Your task to perform on an android device: turn on priority inbox in the gmail app Image 0: 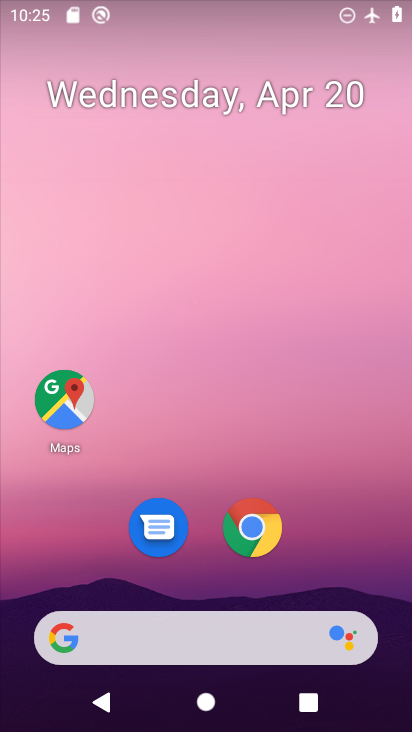
Step 0: drag from (335, 267) to (355, 27)
Your task to perform on an android device: turn on priority inbox in the gmail app Image 1: 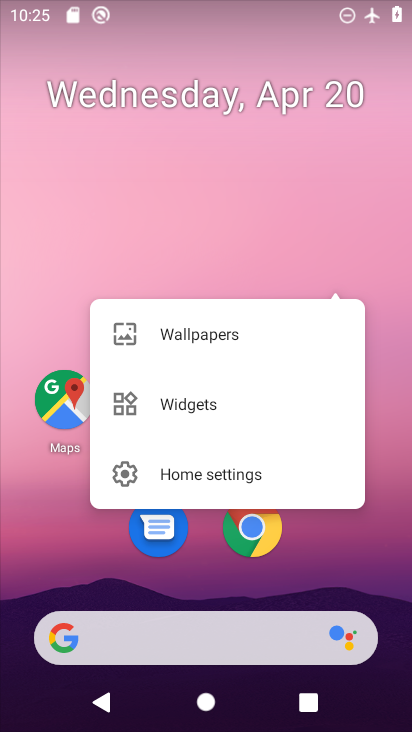
Step 1: click (252, 526)
Your task to perform on an android device: turn on priority inbox in the gmail app Image 2: 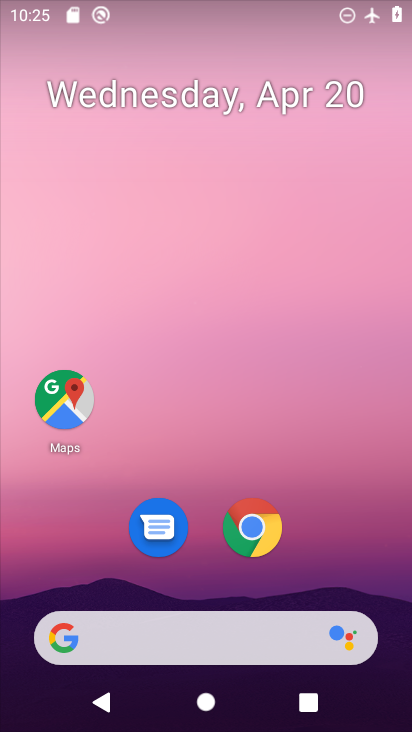
Step 2: drag from (218, 546) to (240, 1)
Your task to perform on an android device: turn on priority inbox in the gmail app Image 3: 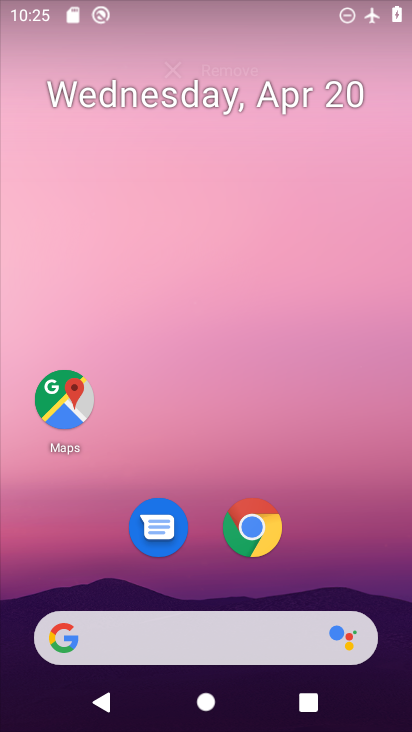
Step 3: click (366, 450)
Your task to perform on an android device: turn on priority inbox in the gmail app Image 4: 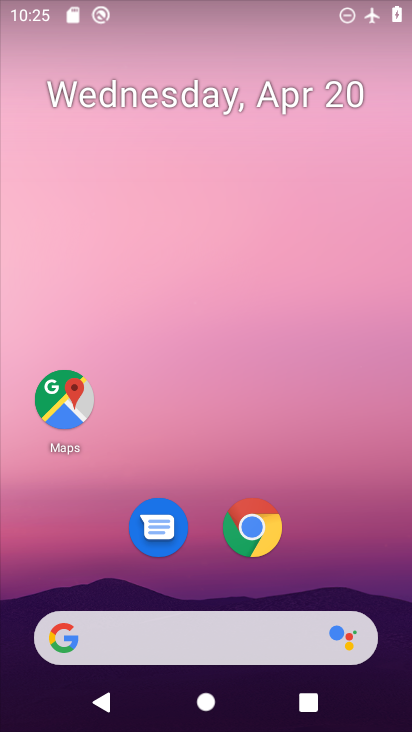
Step 4: drag from (212, 577) to (326, 14)
Your task to perform on an android device: turn on priority inbox in the gmail app Image 5: 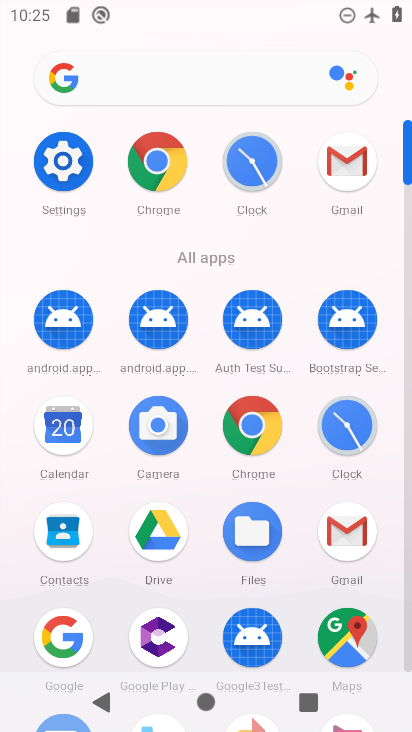
Step 5: drag from (174, 336) to (183, 248)
Your task to perform on an android device: turn on priority inbox in the gmail app Image 6: 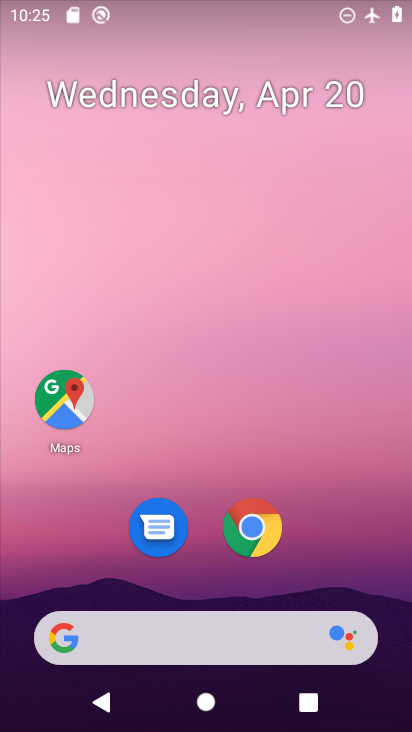
Step 6: click (357, 537)
Your task to perform on an android device: turn on priority inbox in the gmail app Image 7: 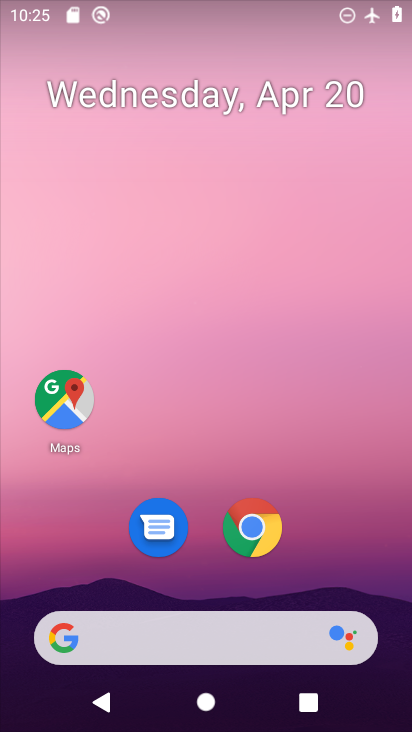
Step 7: drag from (227, 563) to (272, 72)
Your task to perform on an android device: turn on priority inbox in the gmail app Image 8: 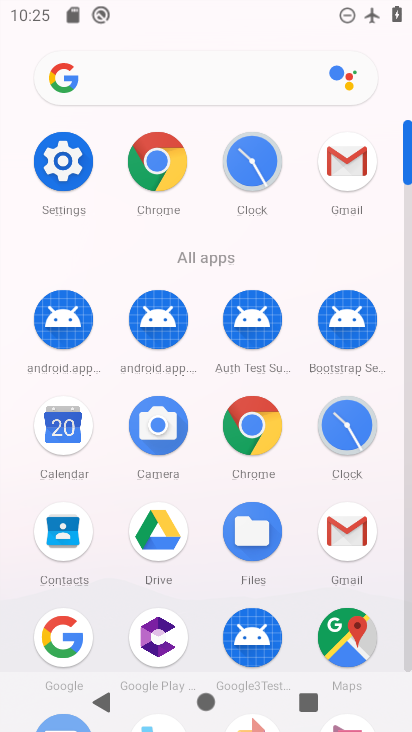
Step 8: click (352, 540)
Your task to perform on an android device: turn on priority inbox in the gmail app Image 9: 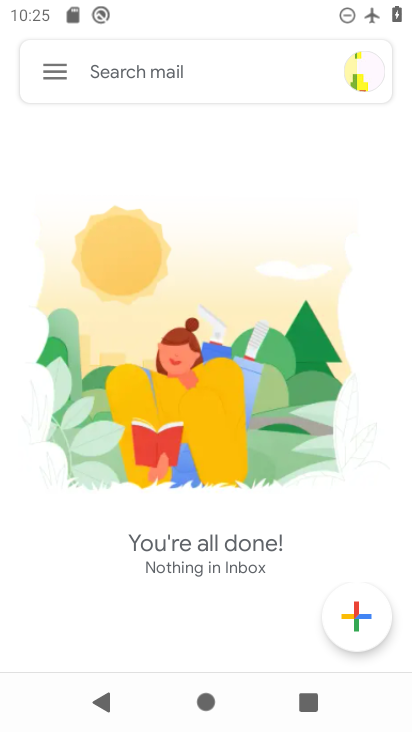
Step 9: click (55, 67)
Your task to perform on an android device: turn on priority inbox in the gmail app Image 10: 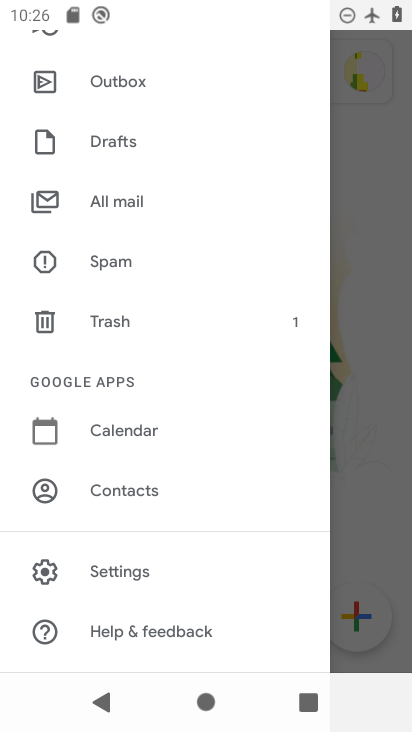
Step 10: click (133, 570)
Your task to perform on an android device: turn on priority inbox in the gmail app Image 11: 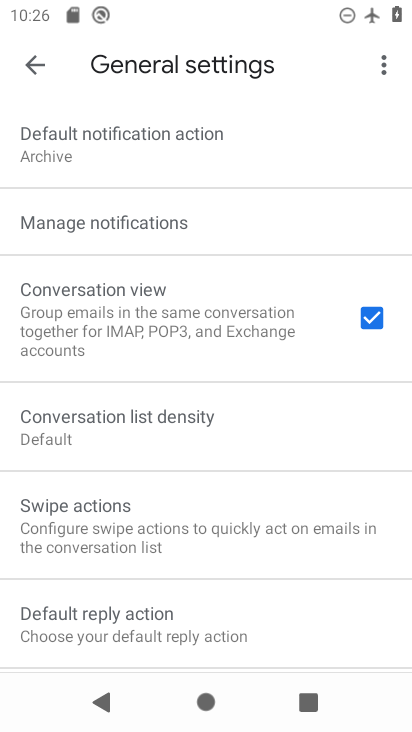
Step 11: click (28, 62)
Your task to perform on an android device: turn on priority inbox in the gmail app Image 12: 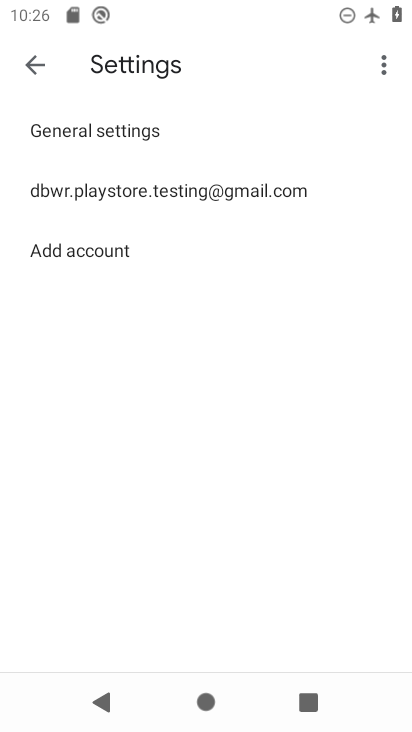
Step 12: click (180, 202)
Your task to perform on an android device: turn on priority inbox in the gmail app Image 13: 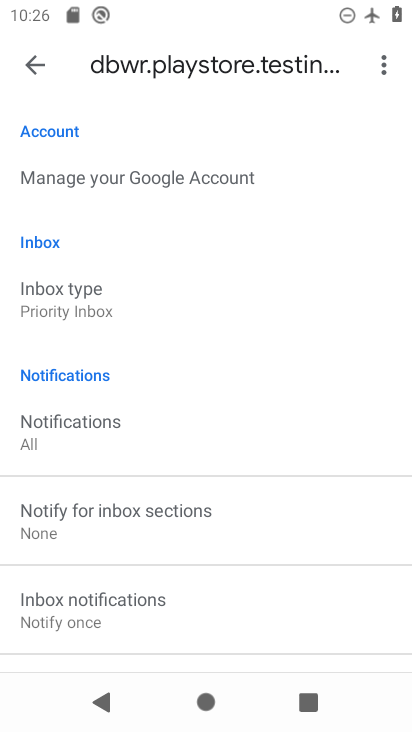
Step 13: click (97, 304)
Your task to perform on an android device: turn on priority inbox in the gmail app Image 14: 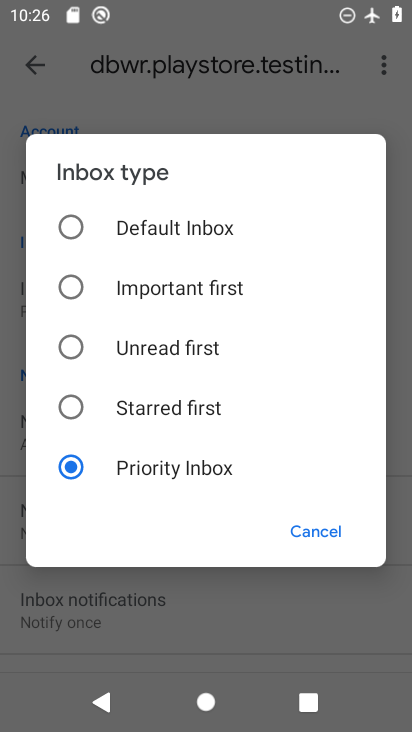
Step 14: task complete